Your task to perform on an android device: turn off translation in the chrome app Image 0: 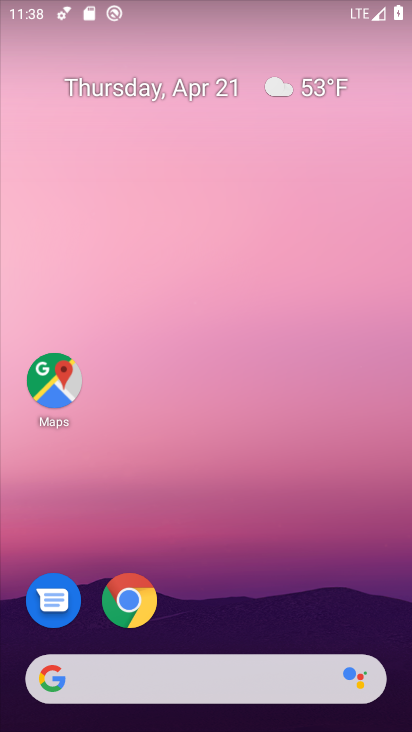
Step 0: click (127, 603)
Your task to perform on an android device: turn off translation in the chrome app Image 1: 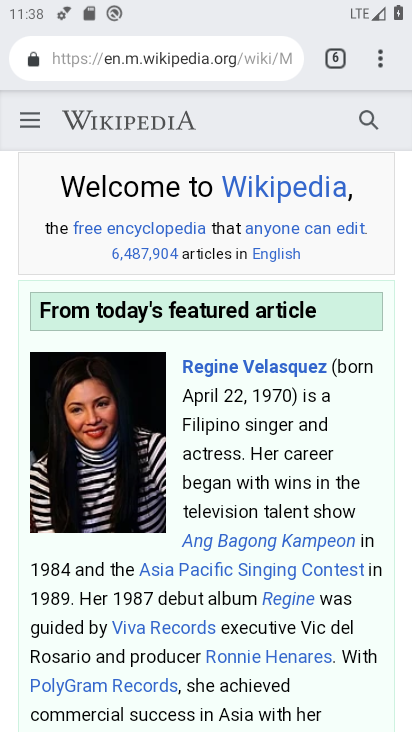
Step 1: click (382, 51)
Your task to perform on an android device: turn off translation in the chrome app Image 2: 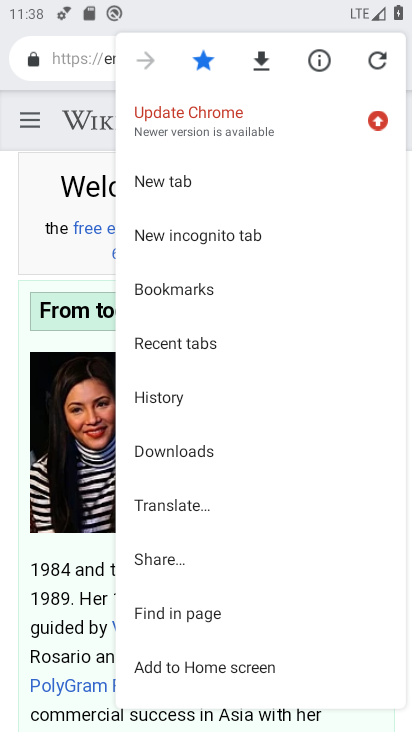
Step 2: drag from (265, 597) to (246, 207)
Your task to perform on an android device: turn off translation in the chrome app Image 3: 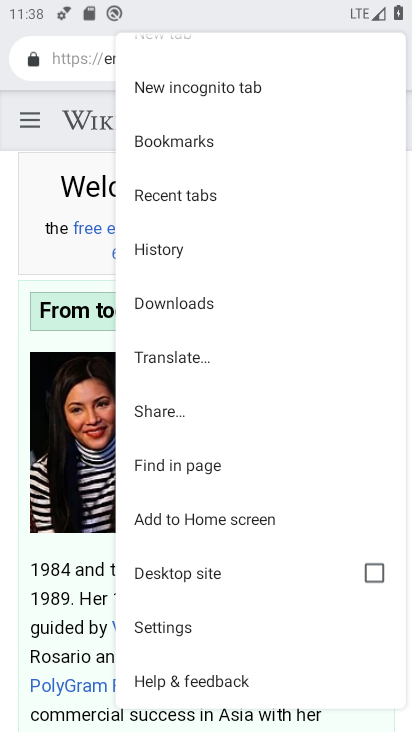
Step 3: drag from (230, 578) to (236, 243)
Your task to perform on an android device: turn off translation in the chrome app Image 4: 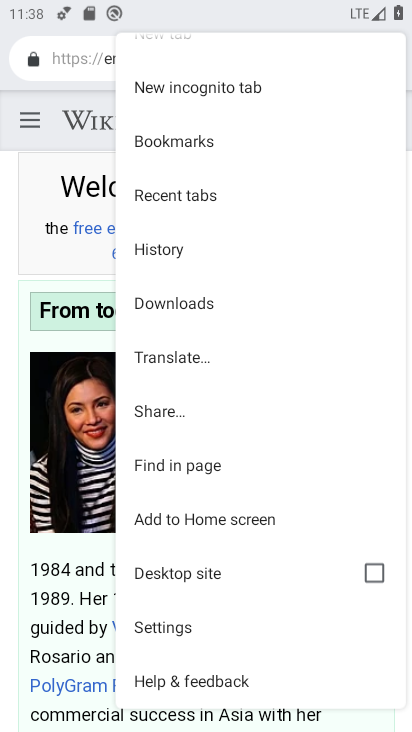
Step 4: click (191, 626)
Your task to perform on an android device: turn off translation in the chrome app Image 5: 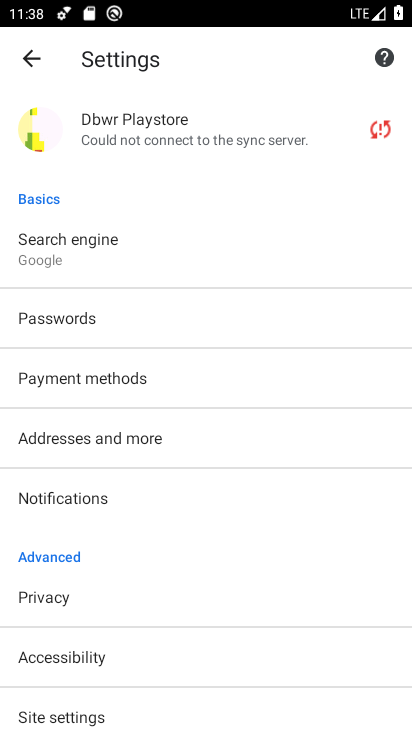
Step 5: drag from (205, 566) to (210, 197)
Your task to perform on an android device: turn off translation in the chrome app Image 6: 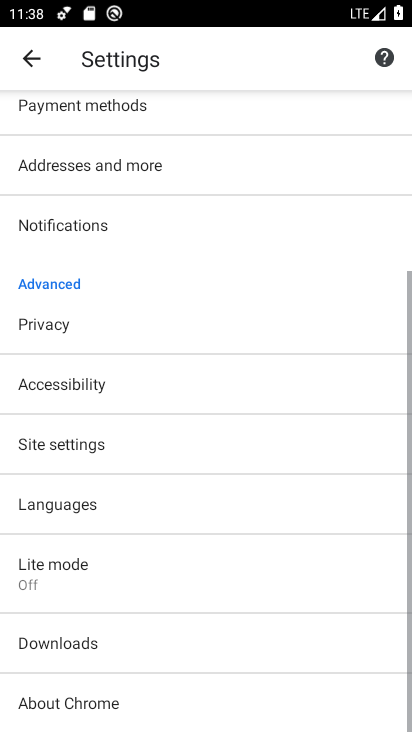
Step 6: click (154, 512)
Your task to perform on an android device: turn off translation in the chrome app Image 7: 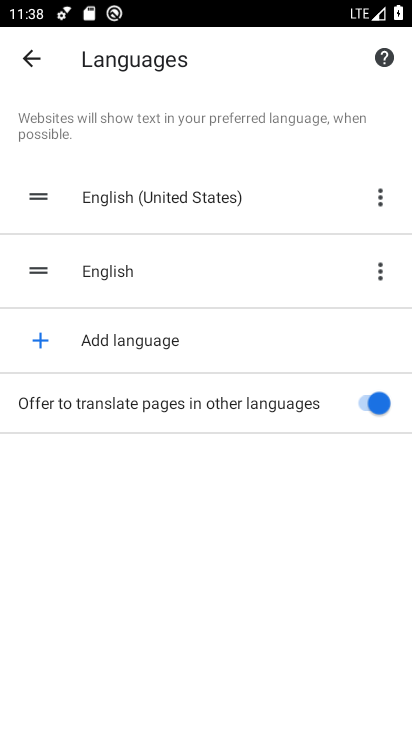
Step 7: click (378, 400)
Your task to perform on an android device: turn off translation in the chrome app Image 8: 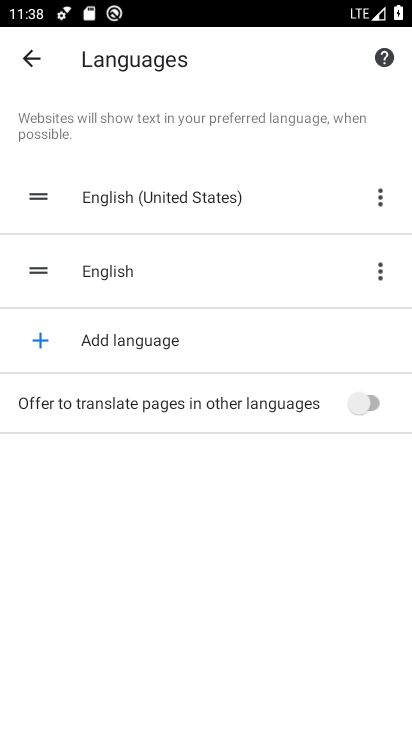
Step 8: task complete